Your task to perform on an android device: Install the Google app Image 0: 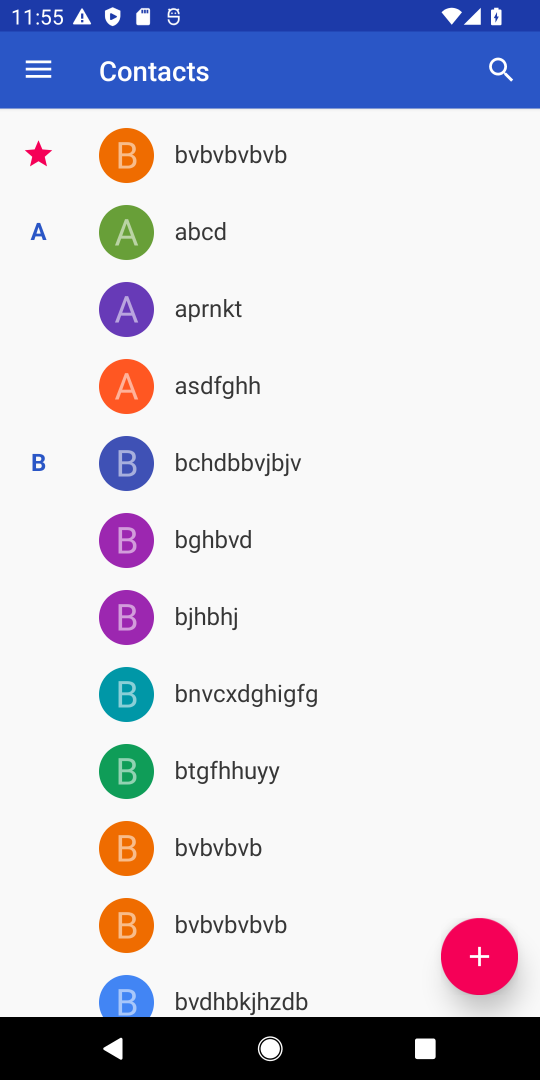
Step 0: press home button
Your task to perform on an android device: Install the Google app Image 1: 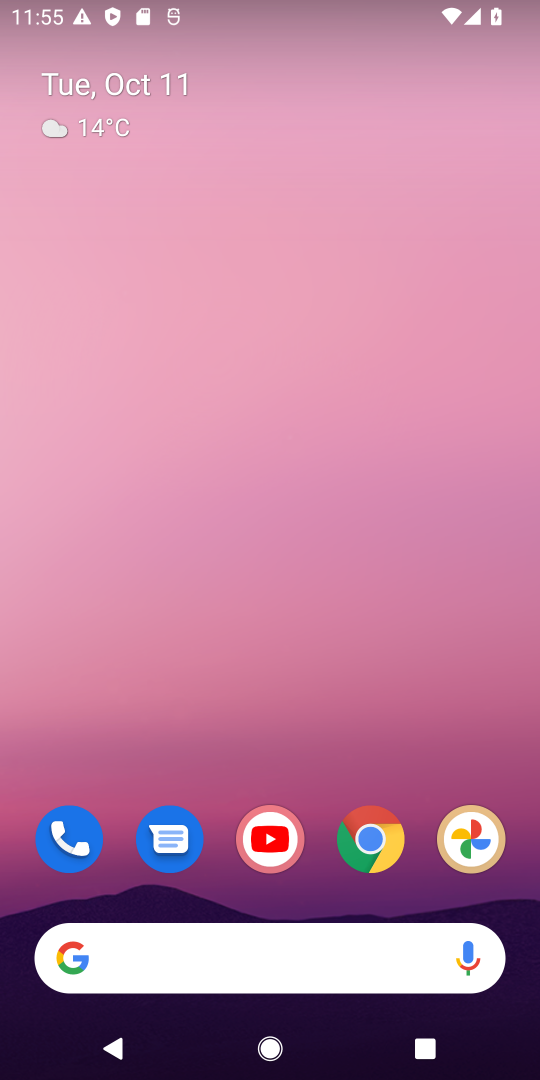
Step 1: drag from (325, 803) to (227, 0)
Your task to perform on an android device: Install the Google app Image 2: 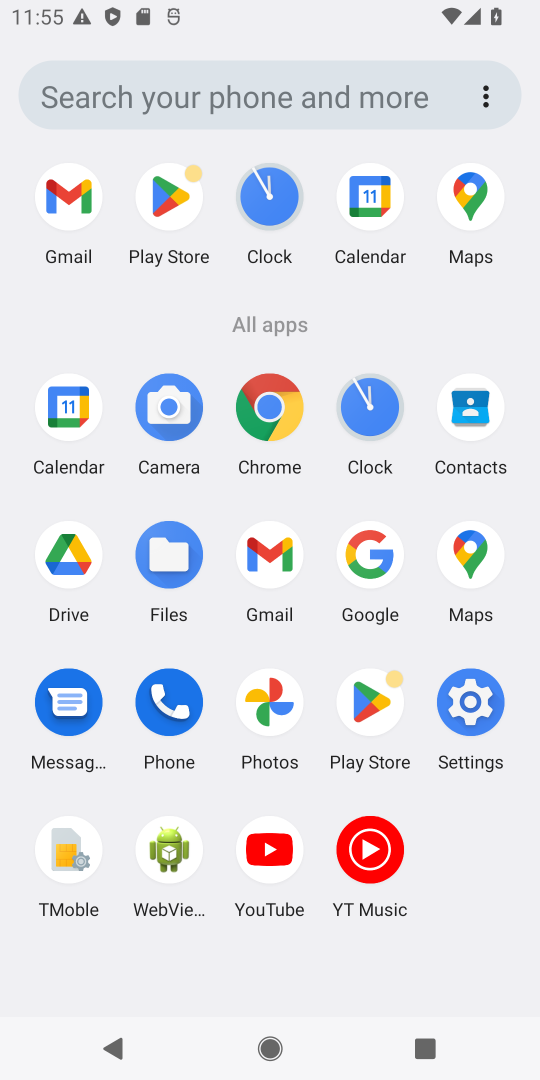
Step 2: click (378, 702)
Your task to perform on an android device: Install the Google app Image 3: 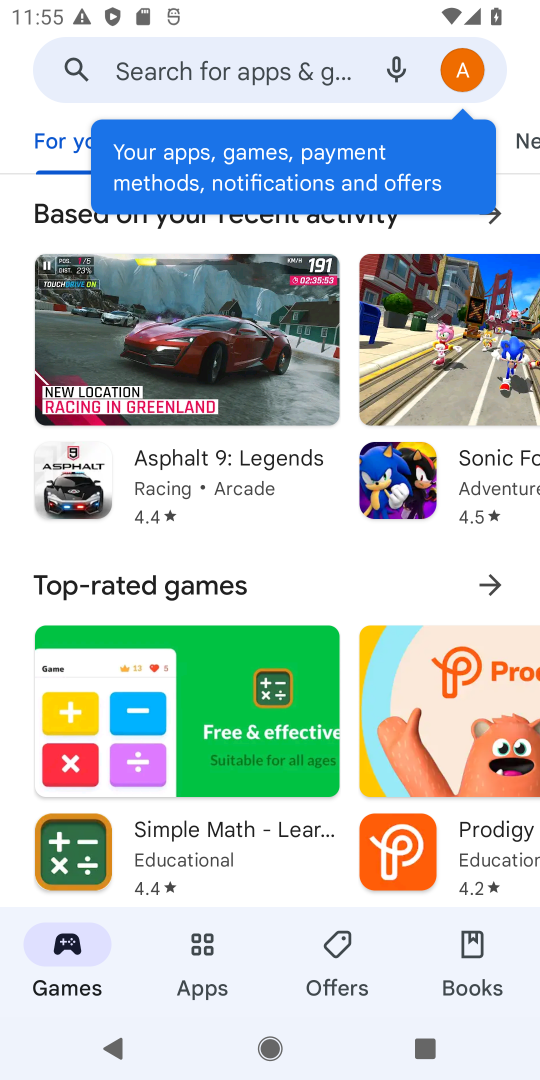
Step 3: click (216, 52)
Your task to perform on an android device: Install the Google app Image 4: 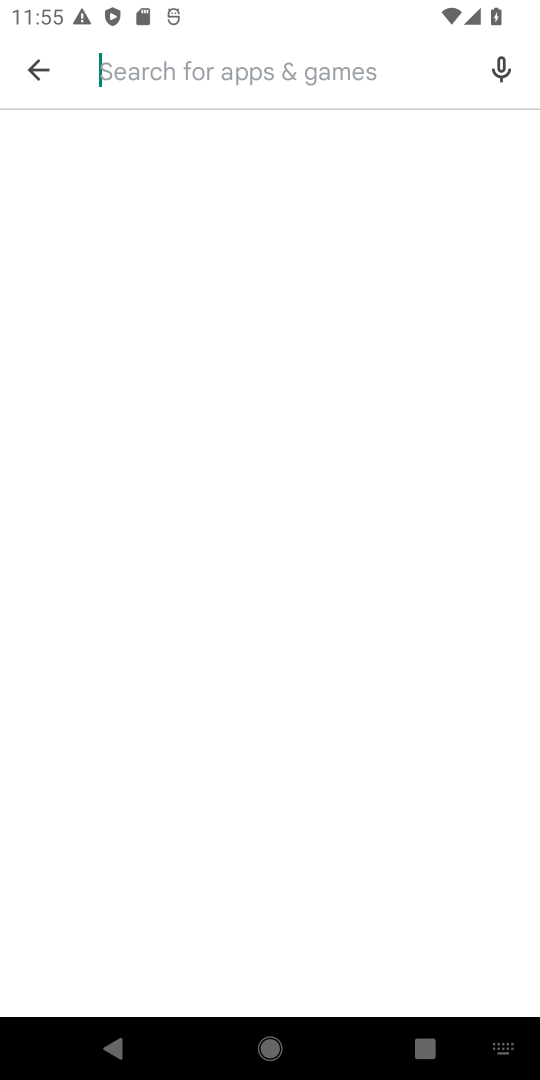
Step 4: type "Google app"
Your task to perform on an android device: Install the Google app Image 5: 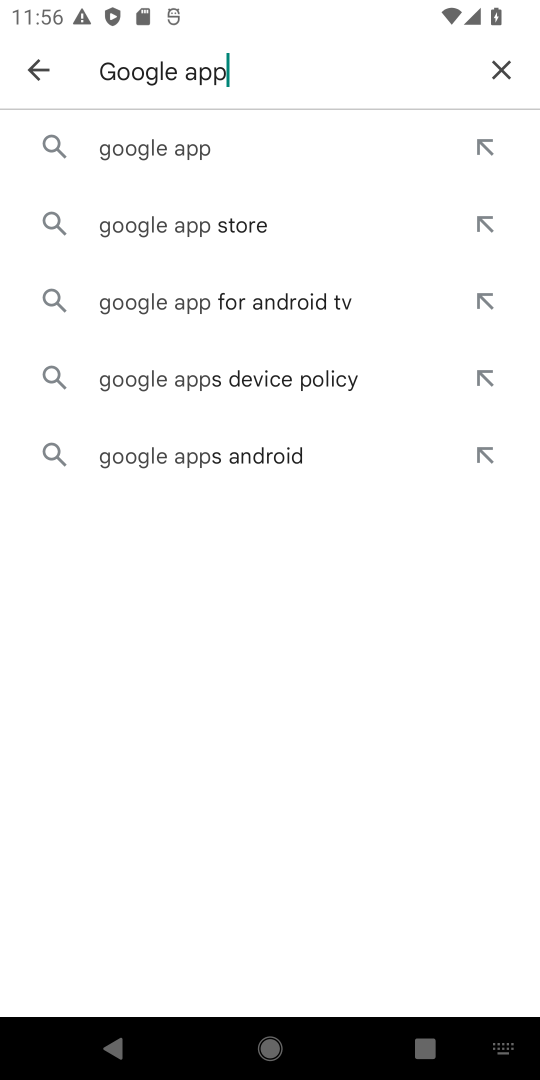
Step 5: click (318, 146)
Your task to perform on an android device: Install the Google app Image 6: 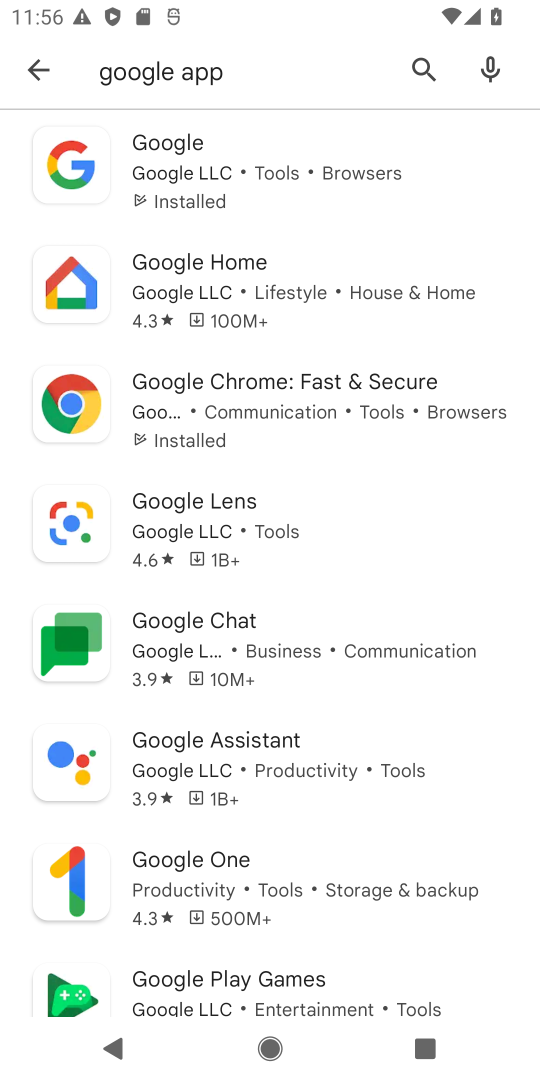
Step 6: click (255, 169)
Your task to perform on an android device: Install the Google app Image 7: 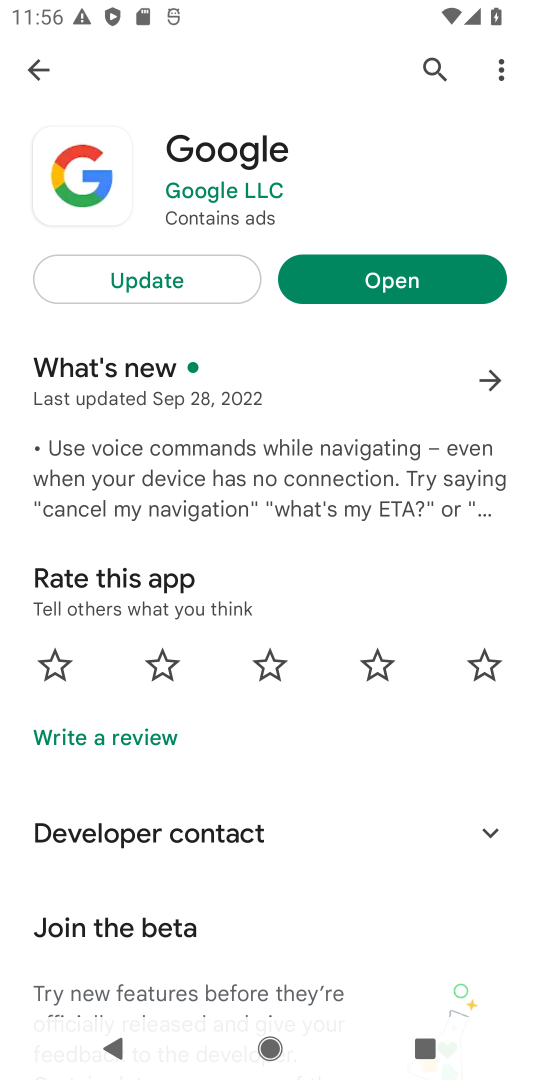
Step 7: task complete